Your task to perform on an android device: open app "Google Pay: Save, Pay, Manage" Image 0: 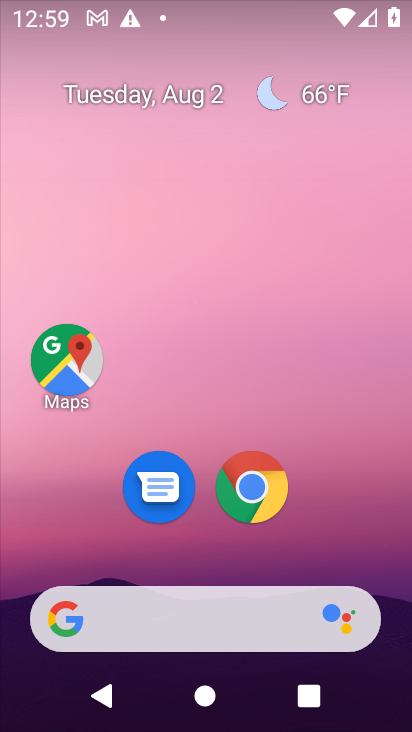
Step 0: drag from (256, 623) to (182, 175)
Your task to perform on an android device: open app "Google Pay: Save, Pay, Manage" Image 1: 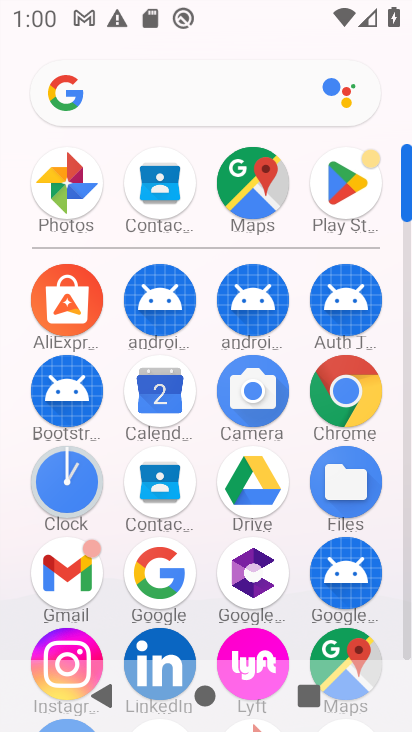
Step 1: click (349, 182)
Your task to perform on an android device: open app "Google Pay: Save, Pay, Manage" Image 2: 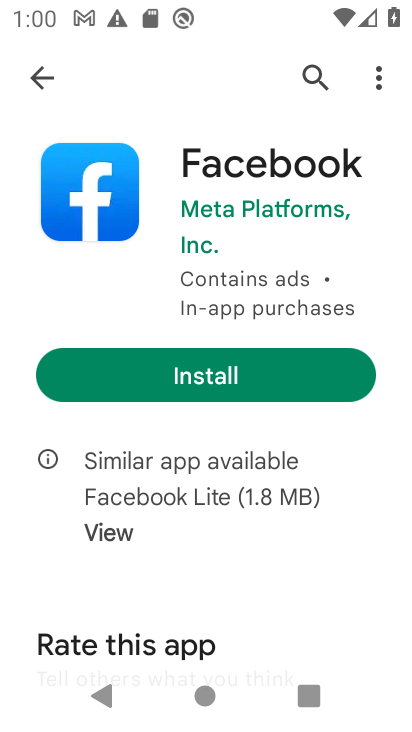
Step 2: click (39, 77)
Your task to perform on an android device: open app "Google Pay: Save, Pay, Manage" Image 3: 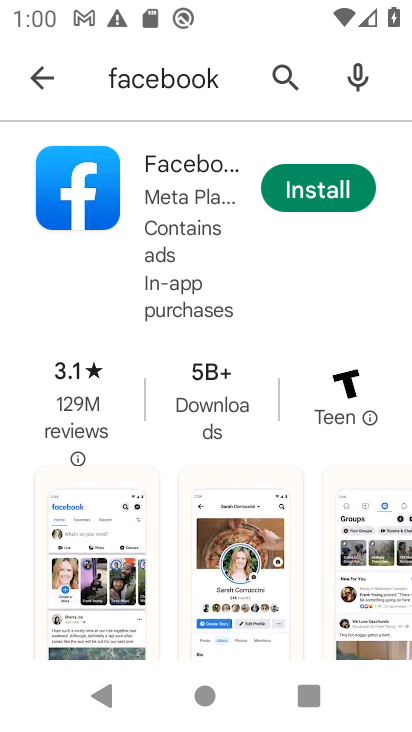
Step 3: click (37, 87)
Your task to perform on an android device: open app "Google Pay: Save, Pay, Manage" Image 4: 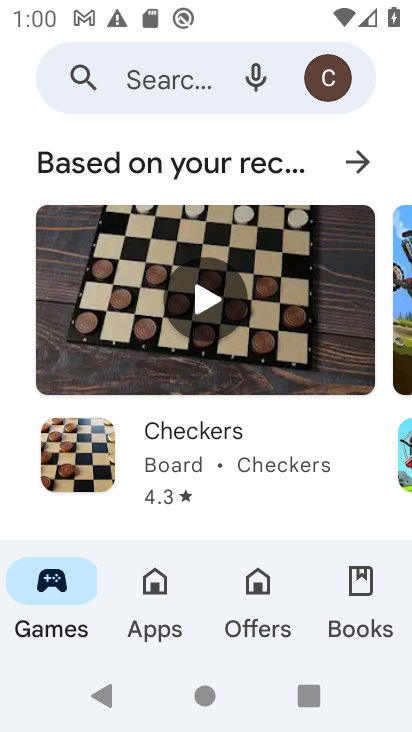
Step 4: click (107, 70)
Your task to perform on an android device: open app "Google Pay: Save, Pay, Manage" Image 5: 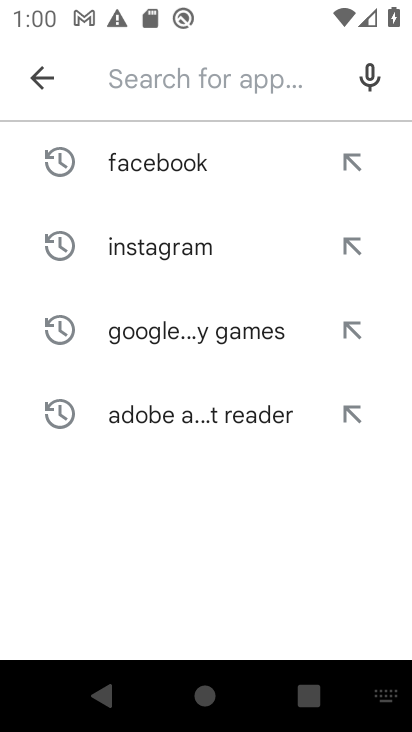
Step 5: type "Google Pay: Save, Pay, Manage"
Your task to perform on an android device: open app "Google Pay: Save, Pay, Manage" Image 6: 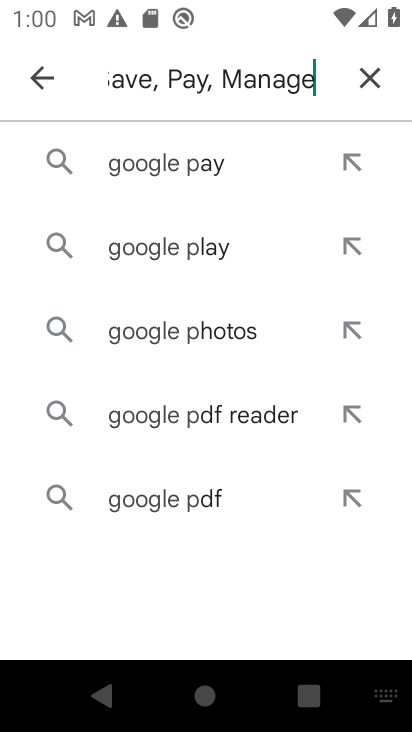
Step 6: type ""
Your task to perform on an android device: open app "Google Pay: Save, Pay, Manage" Image 7: 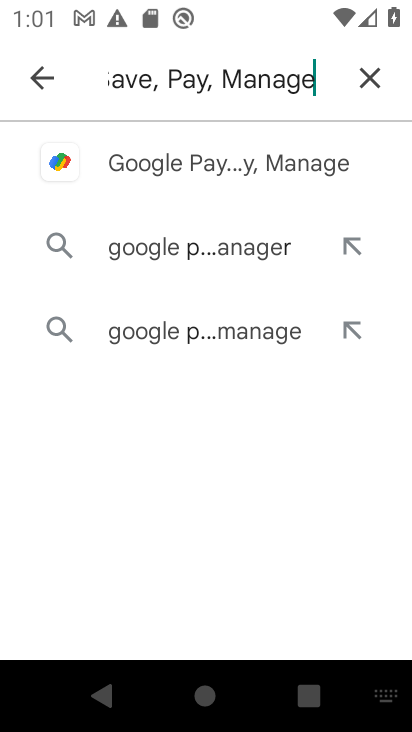
Step 7: click (167, 170)
Your task to perform on an android device: open app "Google Pay: Save, Pay, Manage" Image 8: 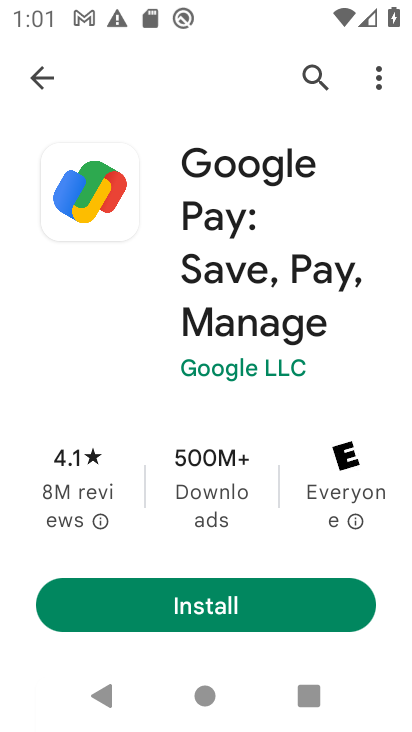
Step 8: task complete